Your task to perform on an android device: Do I have any events this weekend? Image 0: 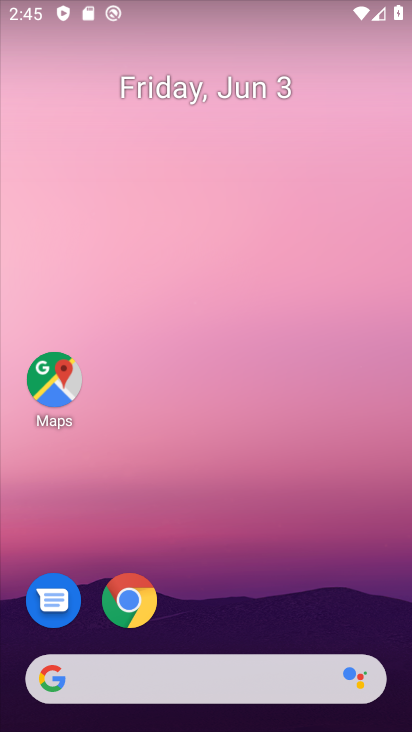
Step 0: drag from (261, 605) to (278, 98)
Your task to perform on an android device: Do I have any events this weekend? Image 1: 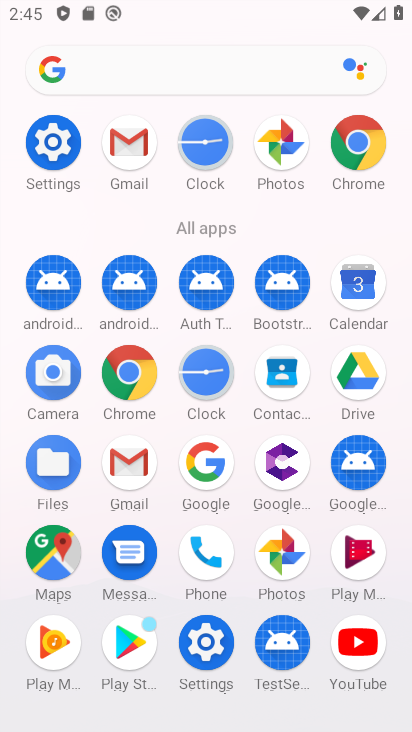
Step 1: click (362, 278)
Your task to perform on an android device: Do I have any events this weekend? Image 2: 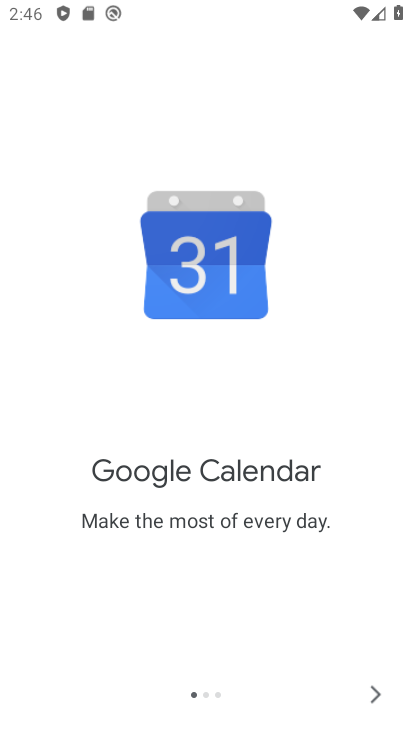
Step 2: click (371, 692)
Your task to perform on an android device: Do I have any events this weekend? Image 3: 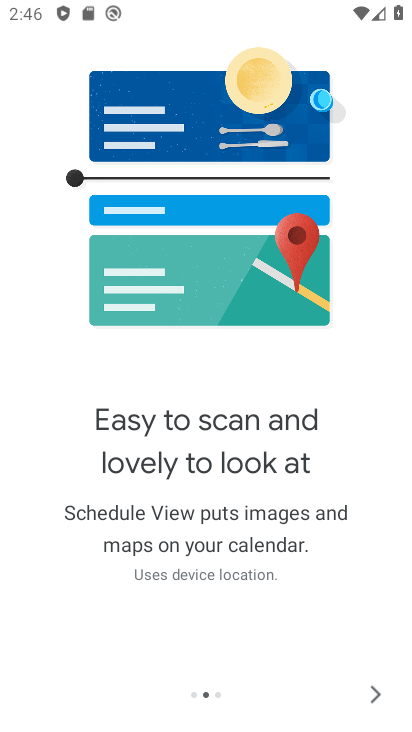
Step 3: click (371, 692)
Your task to perform on an android device: Do I have any events this weekend? Image 4: 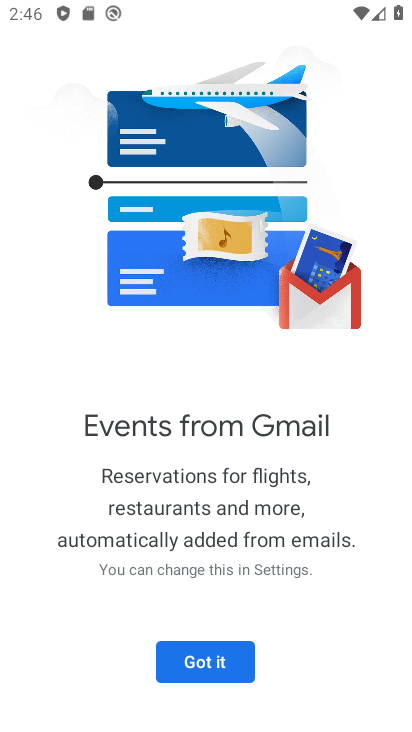
Step 4: click (200, 673)
Your task to perform on an android device: Do I have any events this weekend? Image 5: 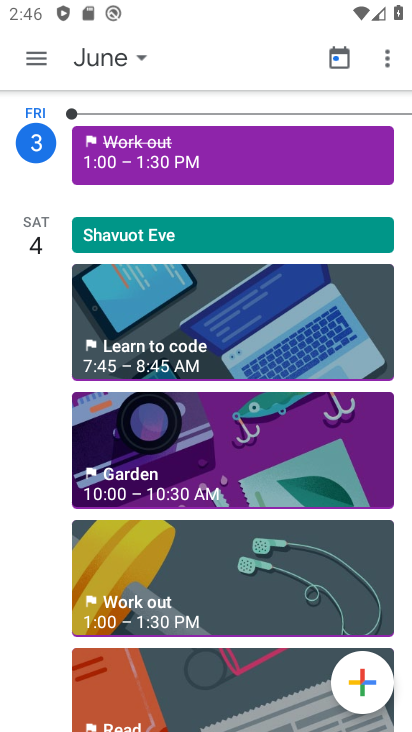
Step 5: click (34, 48)
Your task to perform on an android device: Do I have any events this weekend? Image 6: 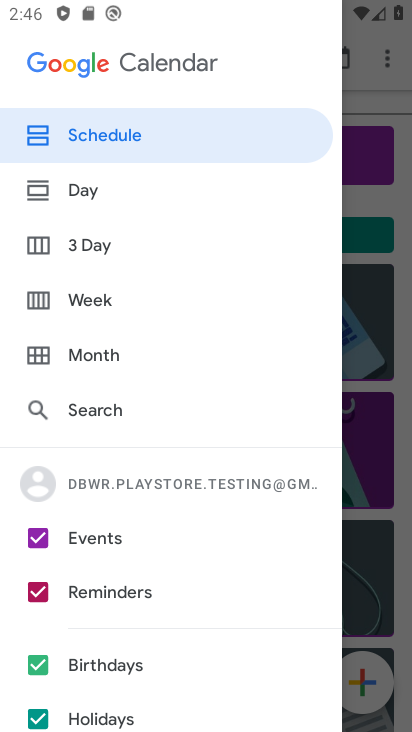
Step 6: click (98, 243)
Your task to perform on an android device: Do I have any events this weekend? Image 7: 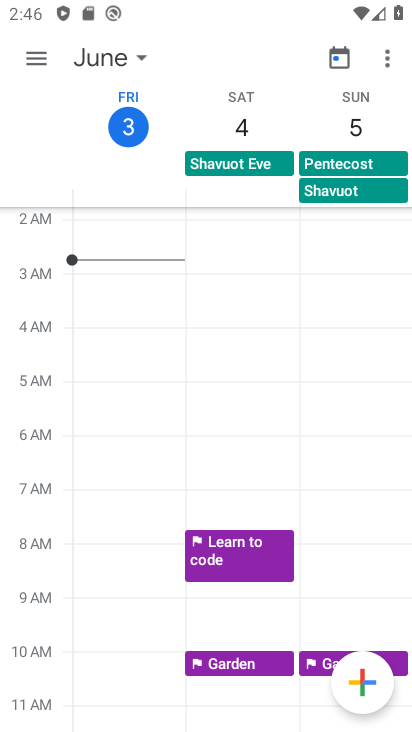
Step 7: task complete